Your task to perform on an android device: Search for razer thresher on walmart, select the first entry, add it to the cart, then select checkout. Image 0: 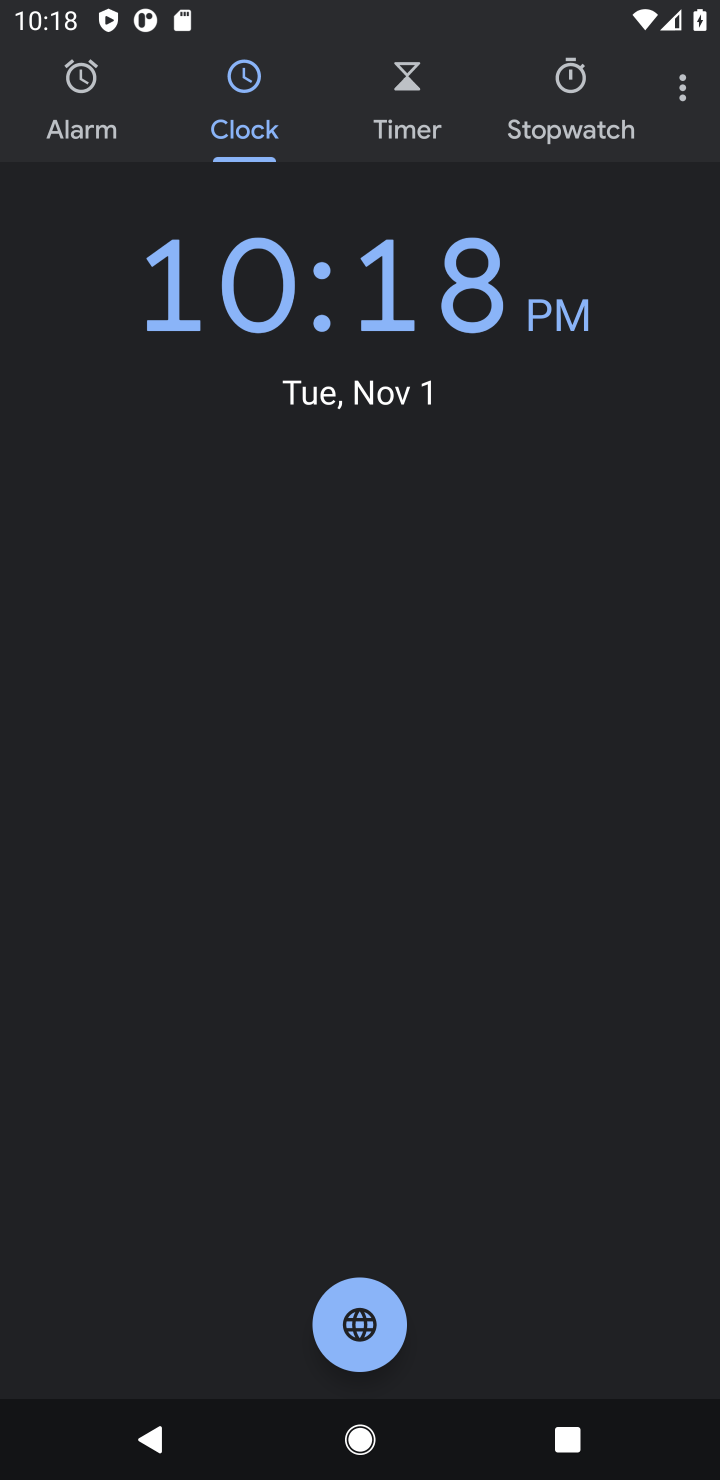
Step 0: press home button
Your task to perform on an android device: Search for razer thresher on walmart, select the first entry, add it to the cart, then select checkout. Image 1: 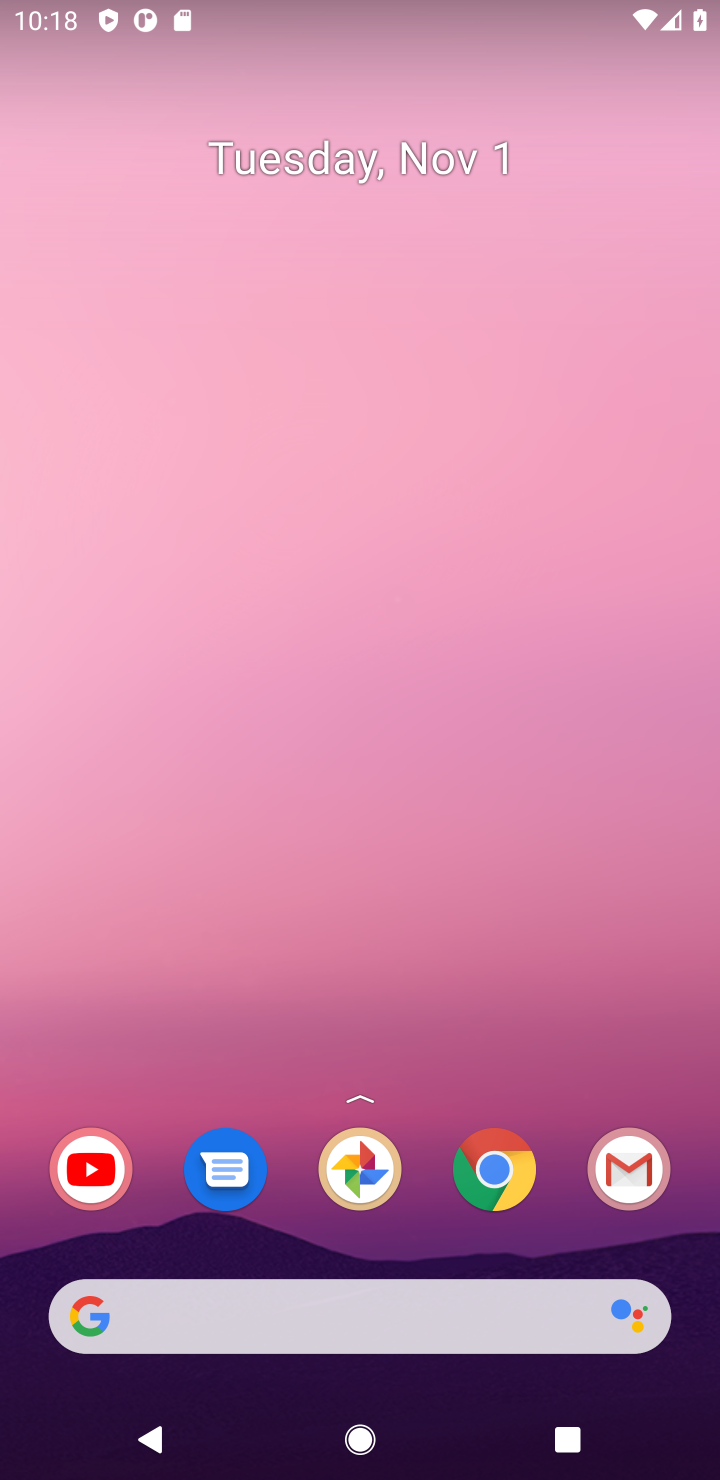
Step 1: click (492, 1164)
Your task to perform on an android device: Search for razer thresher on walmart, select the first entry, add it to the cart, then select checkout. Image 2: 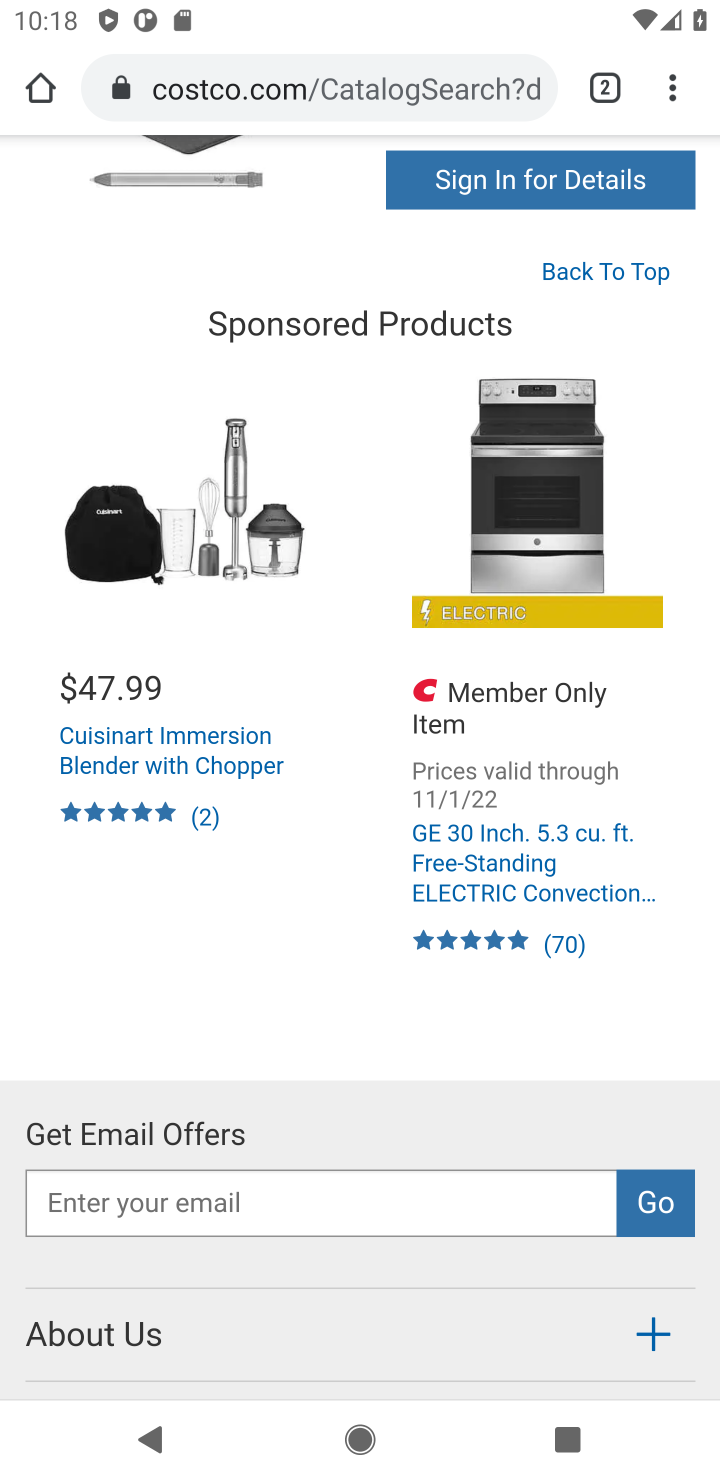
Step 2: click (319, 80)
Your task to perform on an android device: Search for razer thresher on walmart, select the first entry, add it to the cart, then select checkout. Image 3: 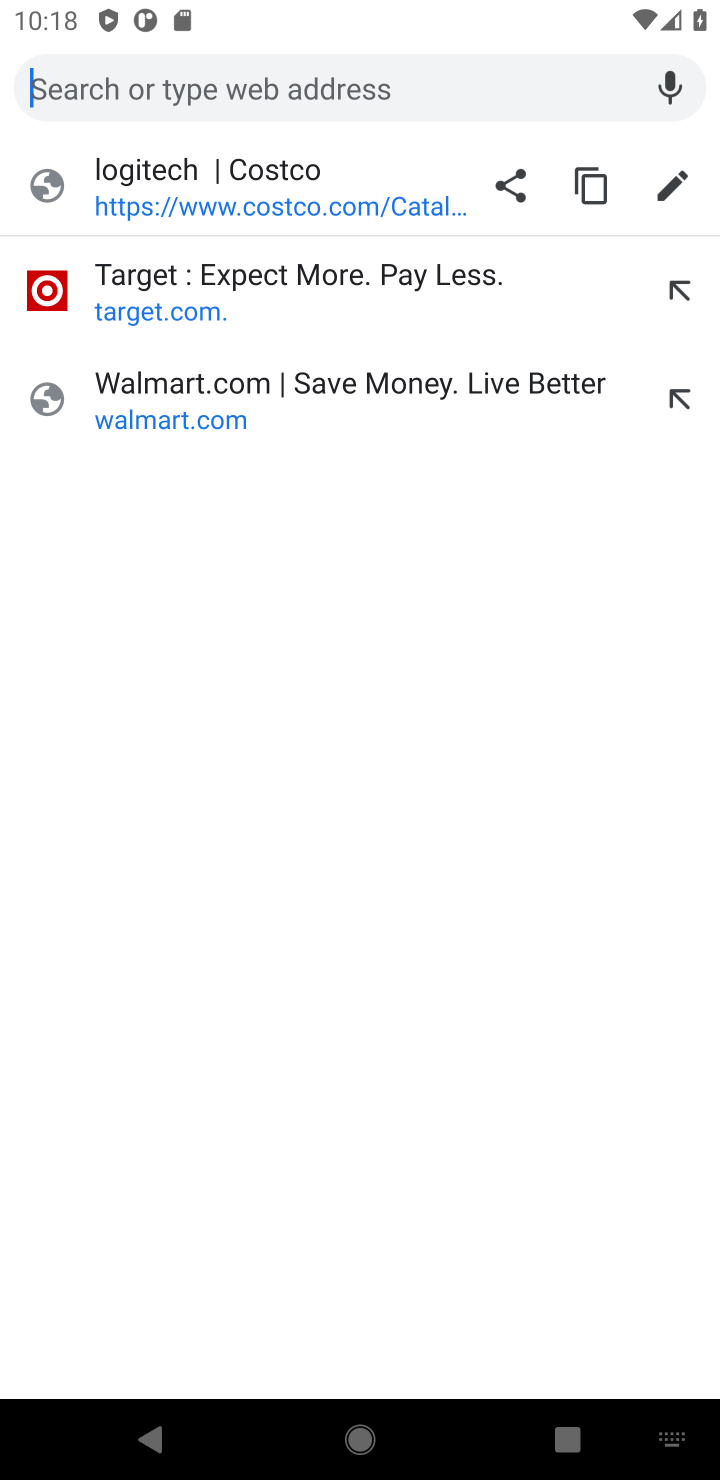
Step 3: type "walmart"
Your task to perform on an android device: Search for razer thresher on walmart, select the first entry, add it to the cart, then select checkout. Image 4: 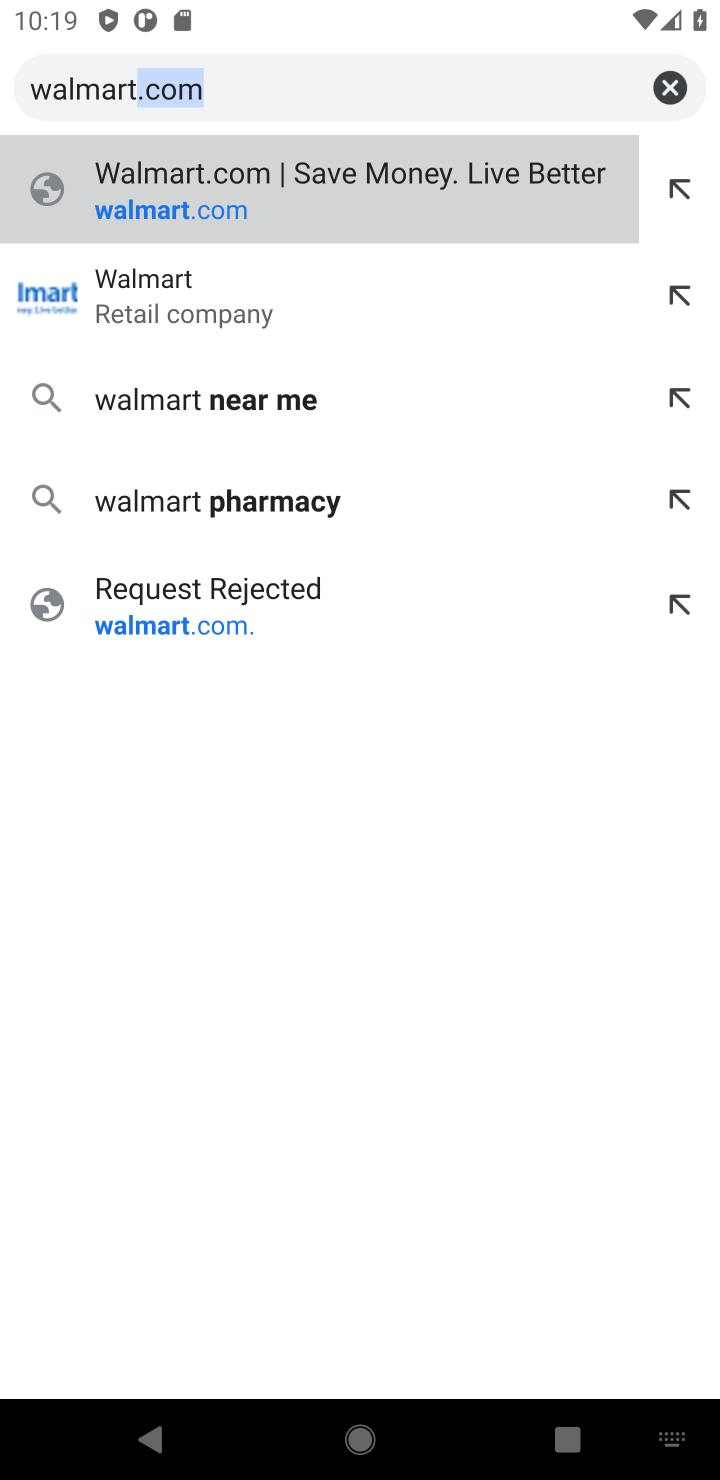
Step 4: click (361, 94)
Your task to perform on an android device: Search for razer thresher on walmart, select the first entry, add it to the cart, then select checkout. Image 5: 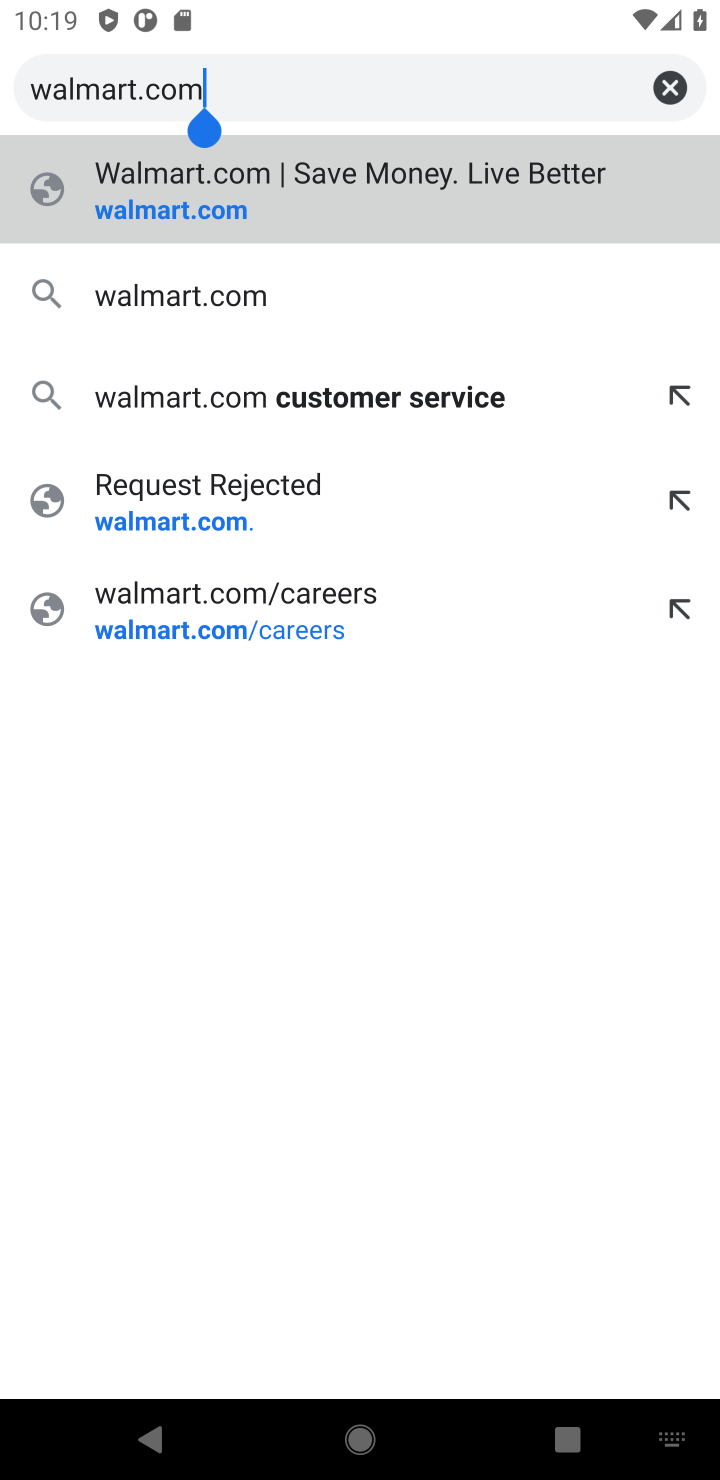
Step 5: click (212, 292)
Your task to perform on an android device: Search for razer thresher on walmart, select the first entry, add it to the cart, then select checkout. Image 6: 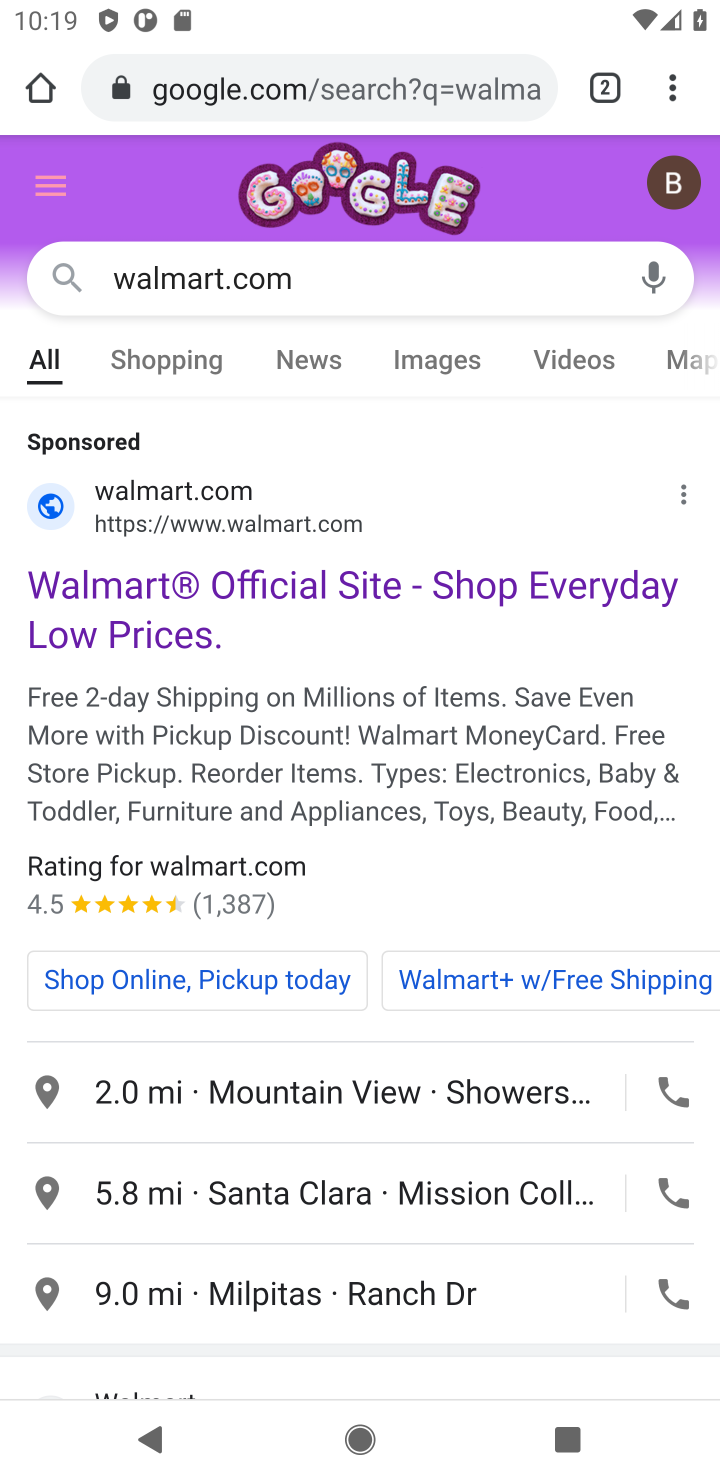
Step 6: drag from (300, 1074) to (320, 611)
Your task to perform on an android device: Search for razer thresher on walmart, select the first entry, add it to the cart, then select checkout. Image 7: 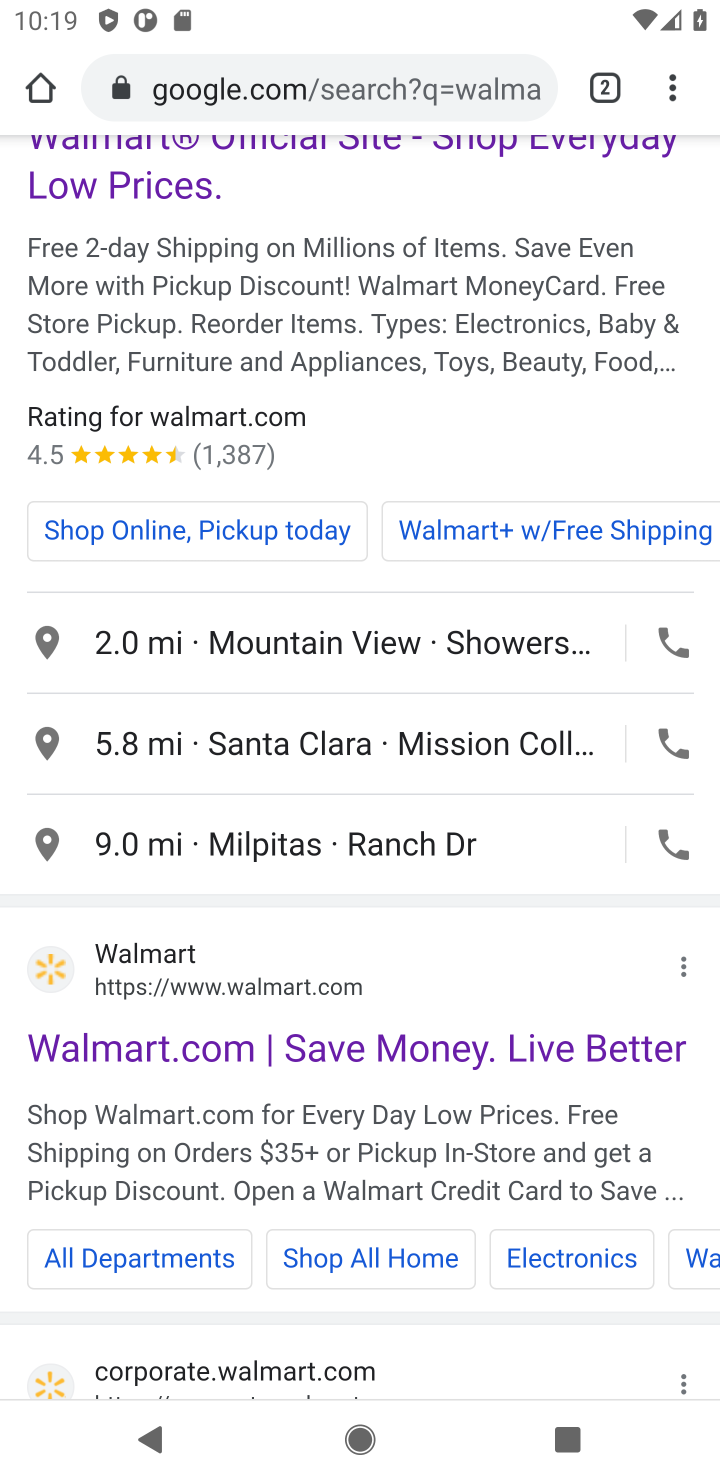
Step 7: click (165, 995)
Your task to perform on an android device: Search for razer thresher on walmart, select the first entry, add it to the cart, then select checkout. Image 8: 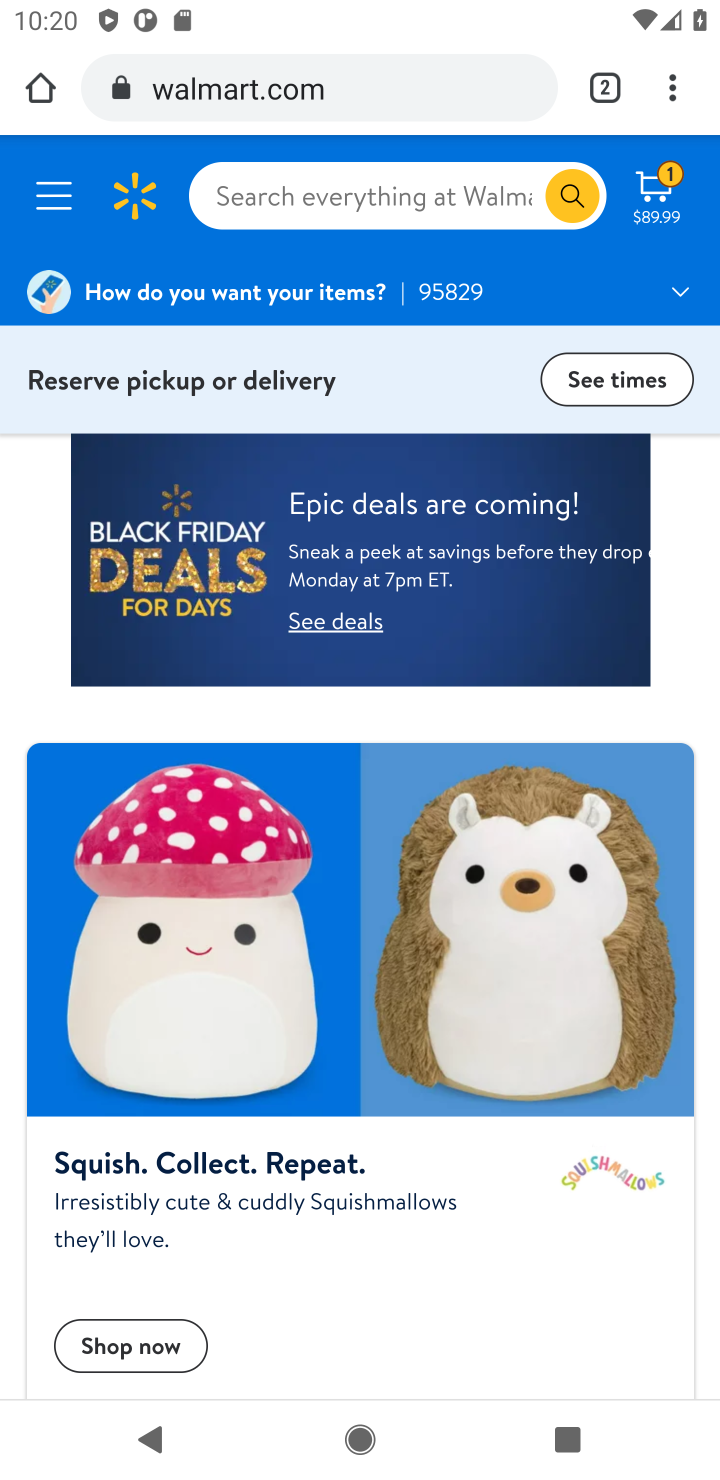
Step 8: click (377, 185)
Your task to perform on an android device: Search for razer thresher on walmart, select the first entry, add it to the cart, then select checkout. Image 9: 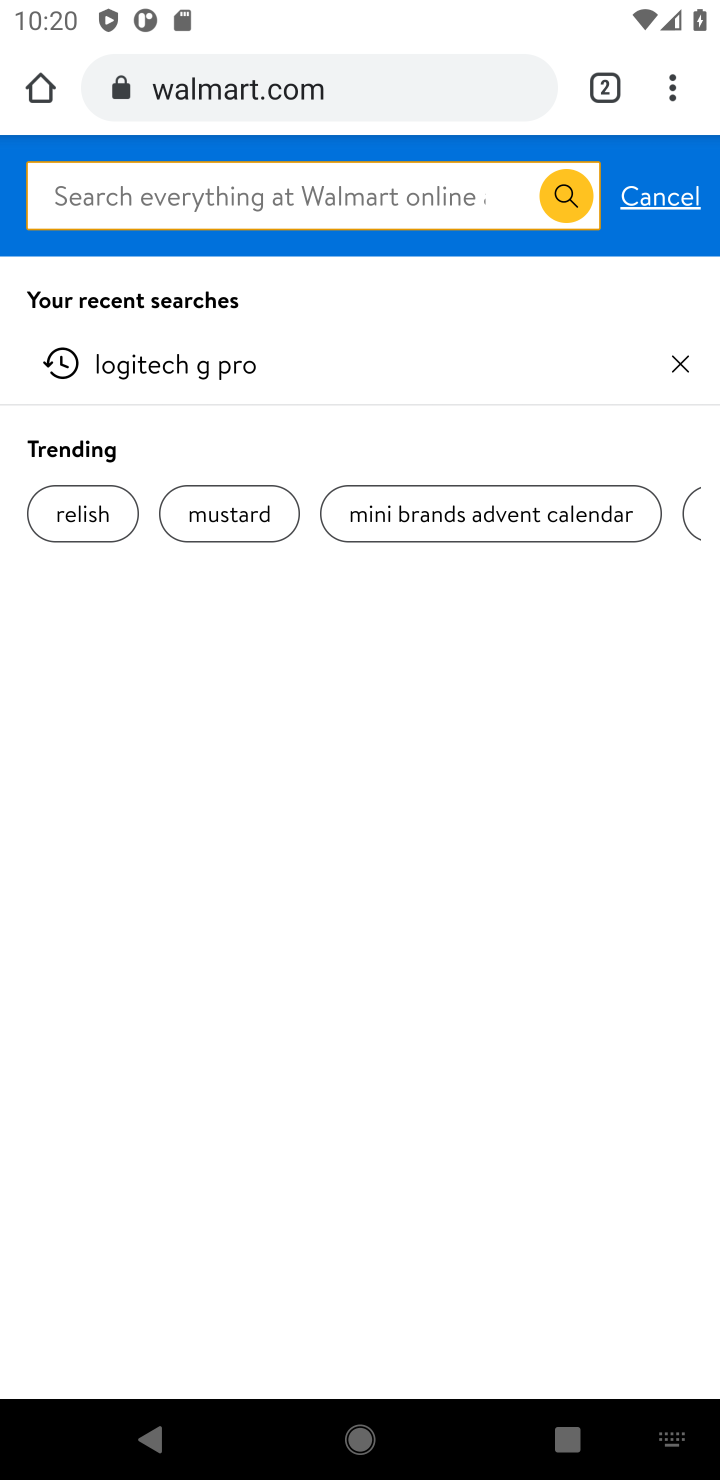
Step 9: type " razer thresher "
Your task to perform on an android device: Search for razer thresher on walmart, select the first entry, add it to the cart, then select checkout. Image 10: 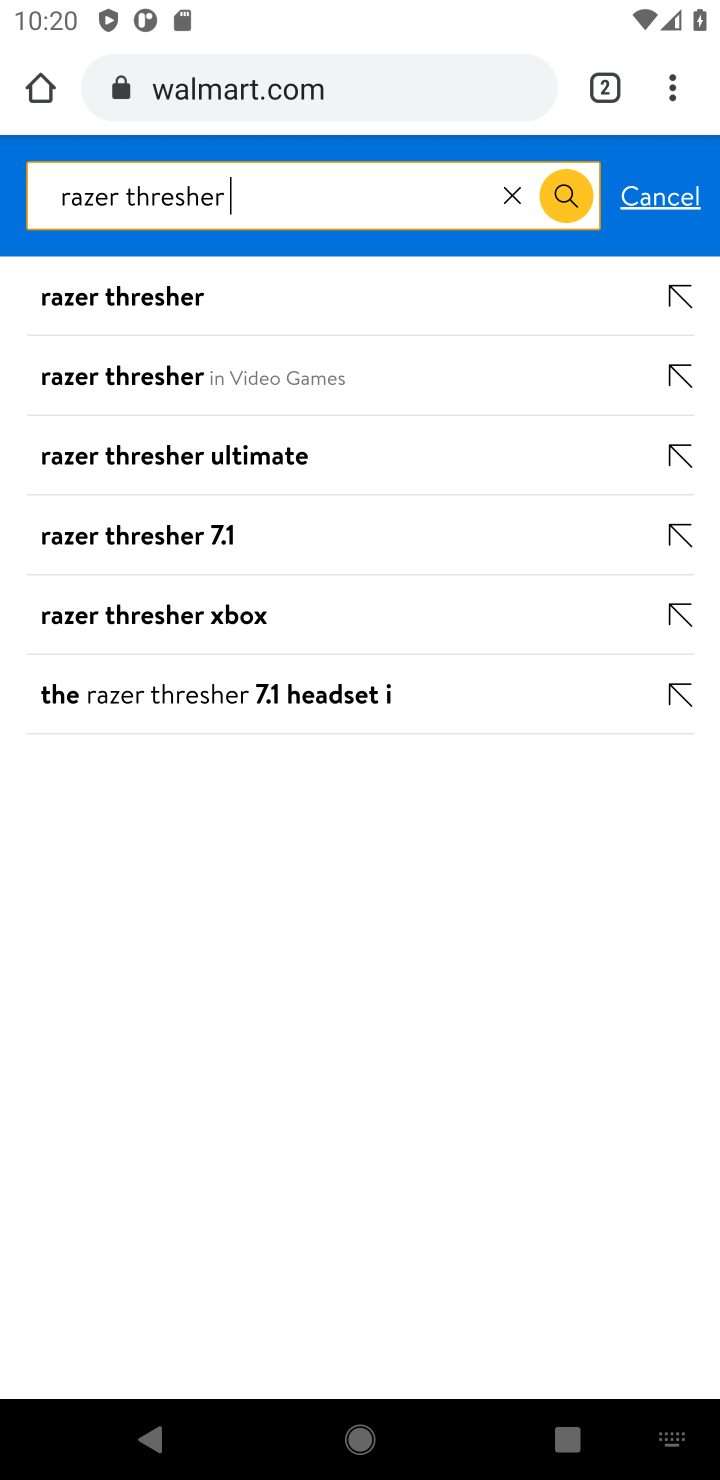
Step 10: click (165, 301)
Your task to perform on an android device: Search for razer thresher on walmart, select the first entry, add it to the cart, then select checkout. Image 11: 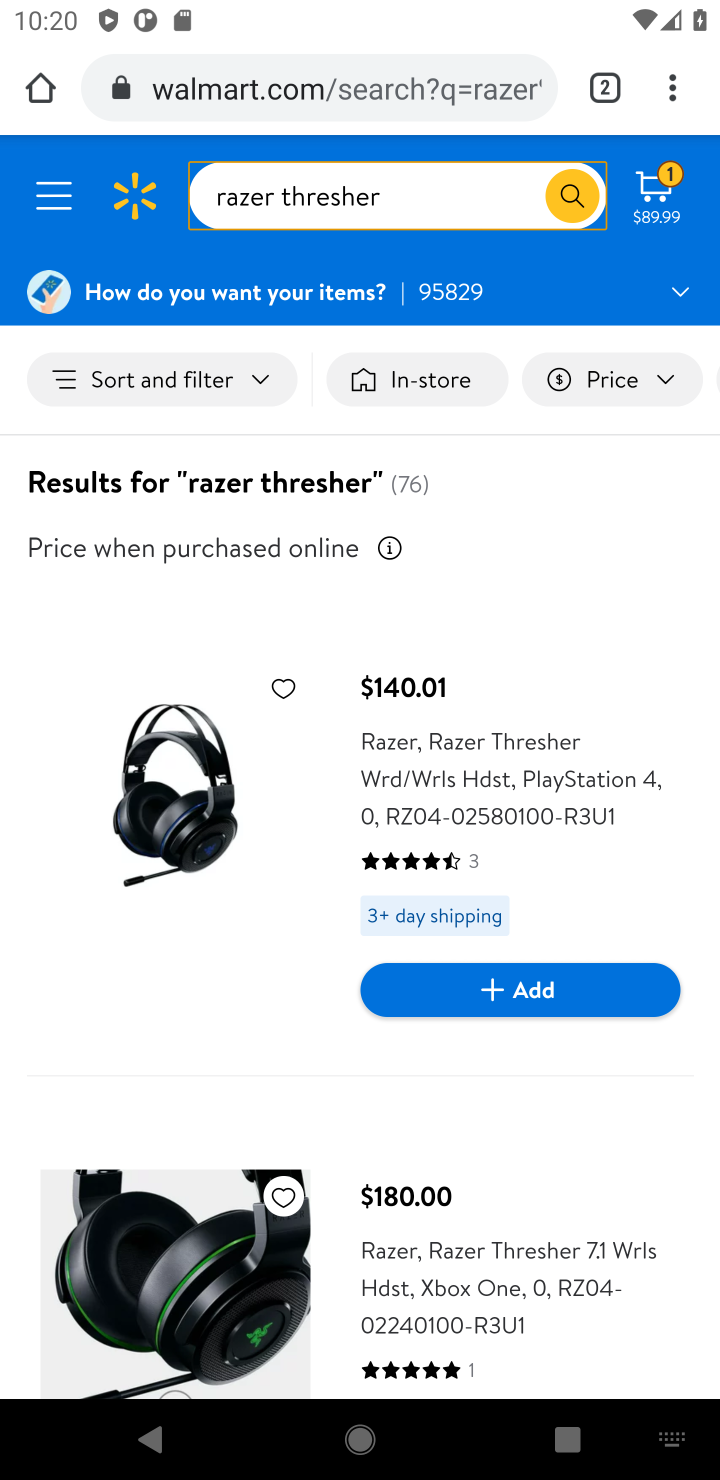
Step 11: click (213, 780)
Your task to perform on an android device: Search for razer thresher on walmart, select the first entry, add it to the cart, then select checkout. Image 12: 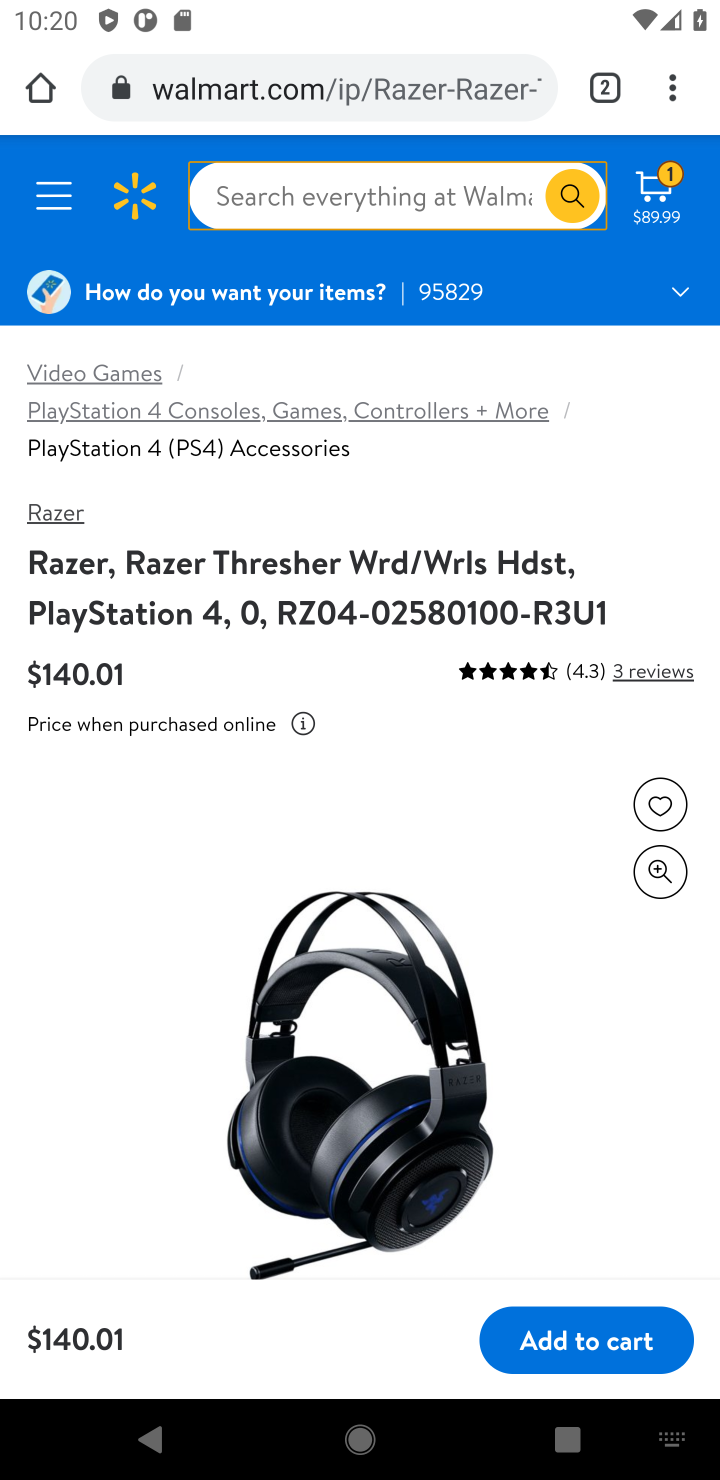
Step 12: click (569, 1329)
Your task to perform on an android device: Search for razer thresher on walmart, select the first entry, add it to the cart, then select checkout. Image 13: 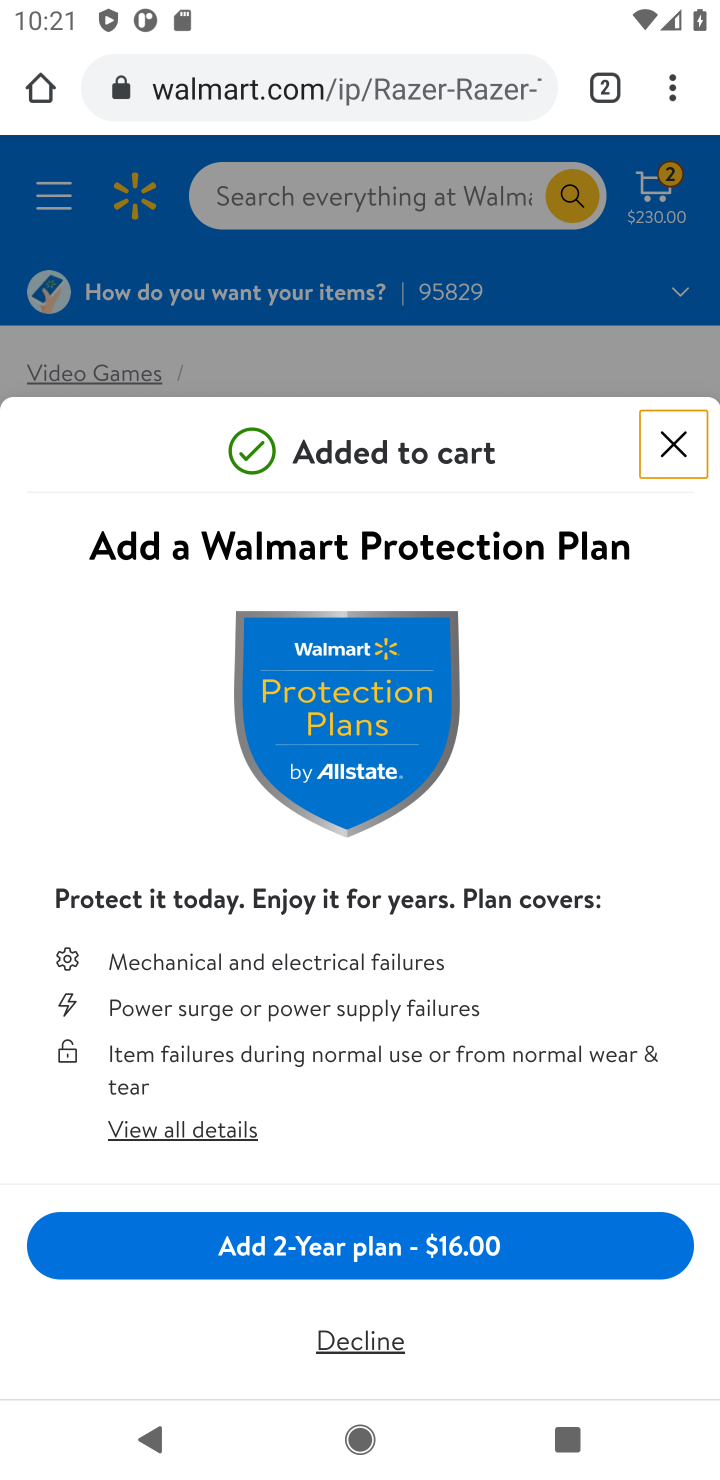
Step 13: click (670, 449)
Your task to perform on an android device: Search for razer thresher on walmart, select the first entry, add it to the cart, then select checkout. Image 14: 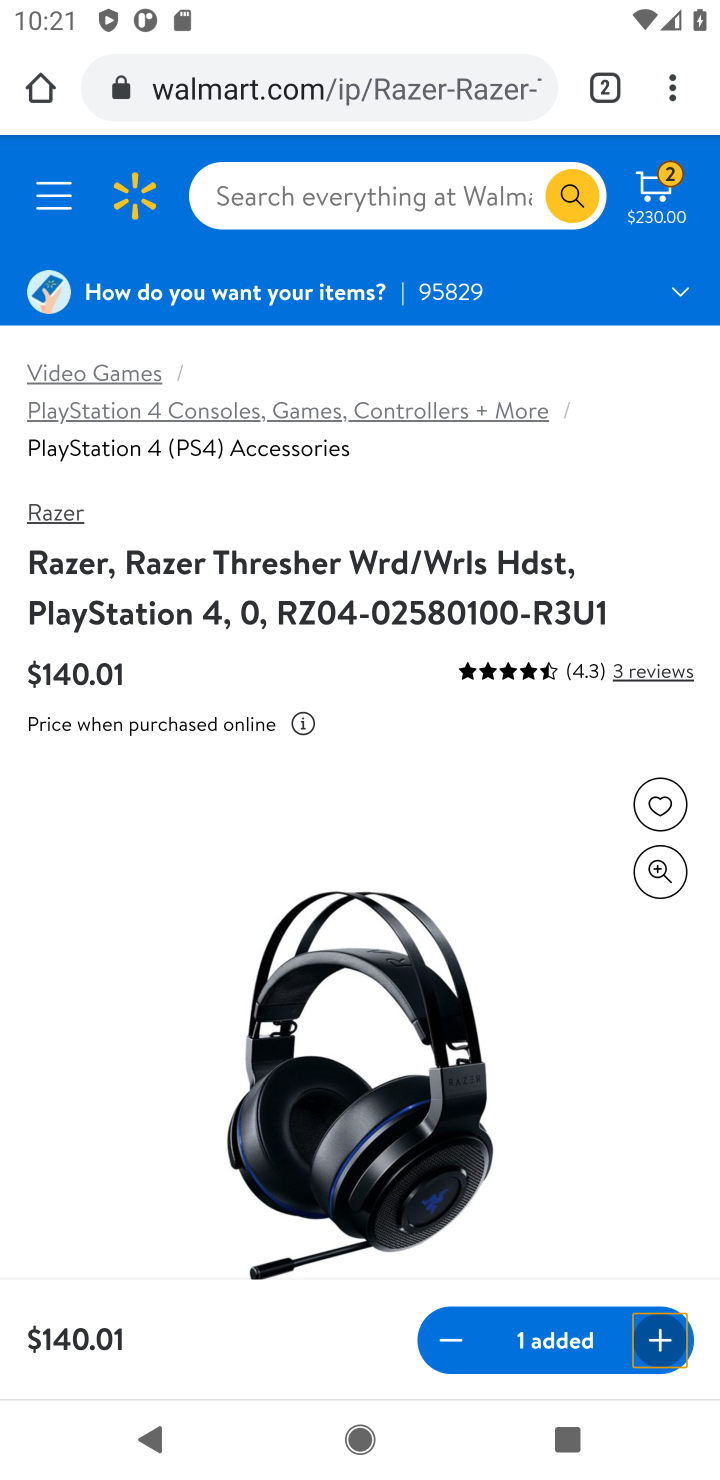
Step 14: click (647, 198)
Your task to perform on an android device: Search for razer thresher on walmart, select the first entry, add it to the cart, then select checkout. Image 15: 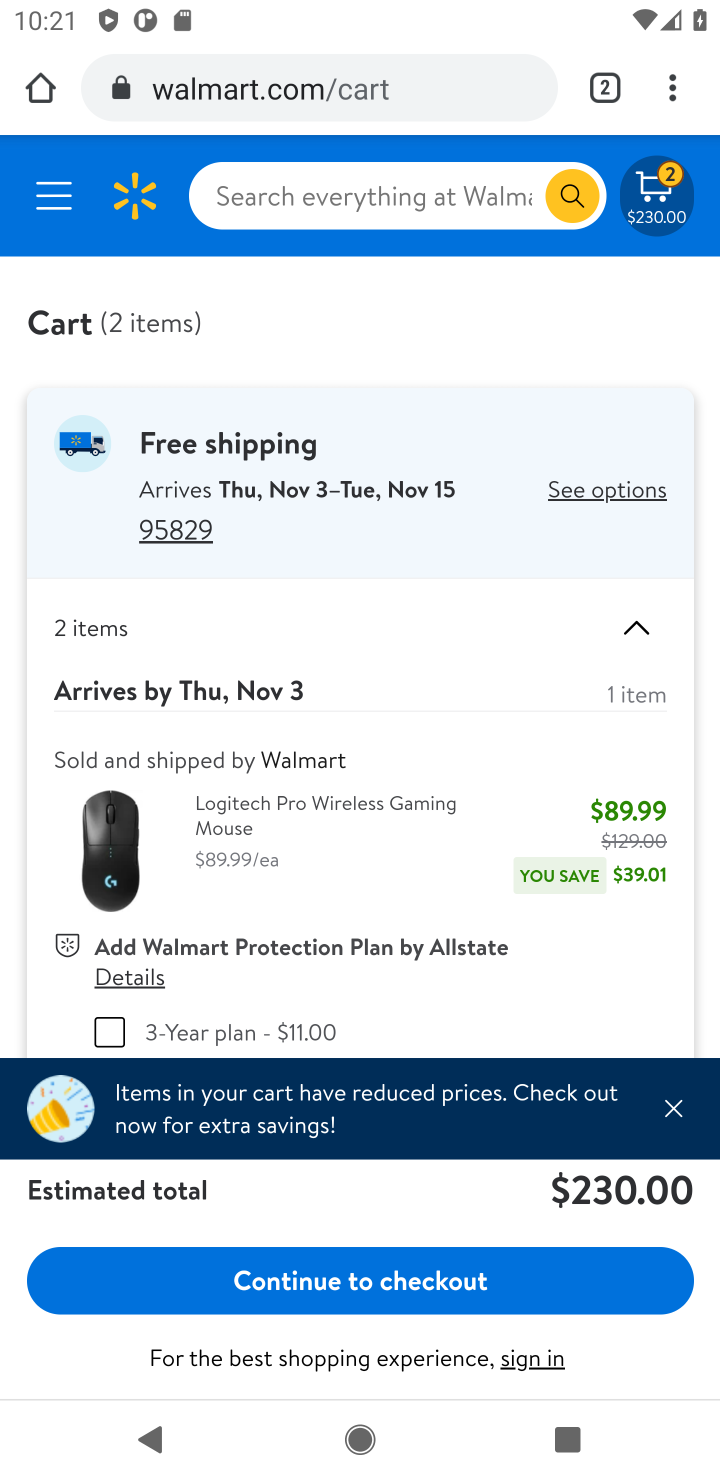
Step 15: drag from (479, 764) to (482, 441)
Your task to perform on an android device: Search for razer thresher on walmart, select the first entry, add it to the cart, then select checkout. Image 16: 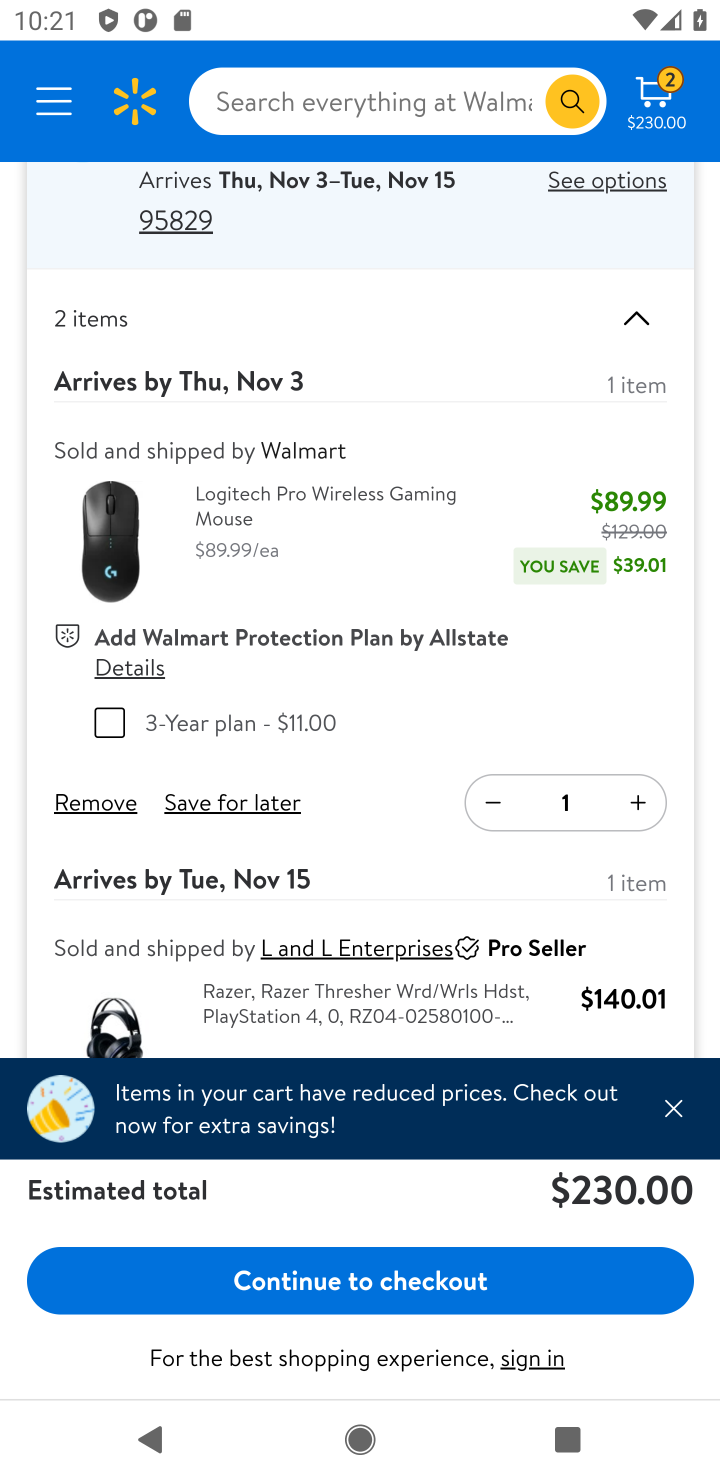
Step 16: click (396, 1276)
Your task to perform on an android device: Search for razer thresher on walmart, select the first entry, add it to the cart, then select checkout. Image 17: 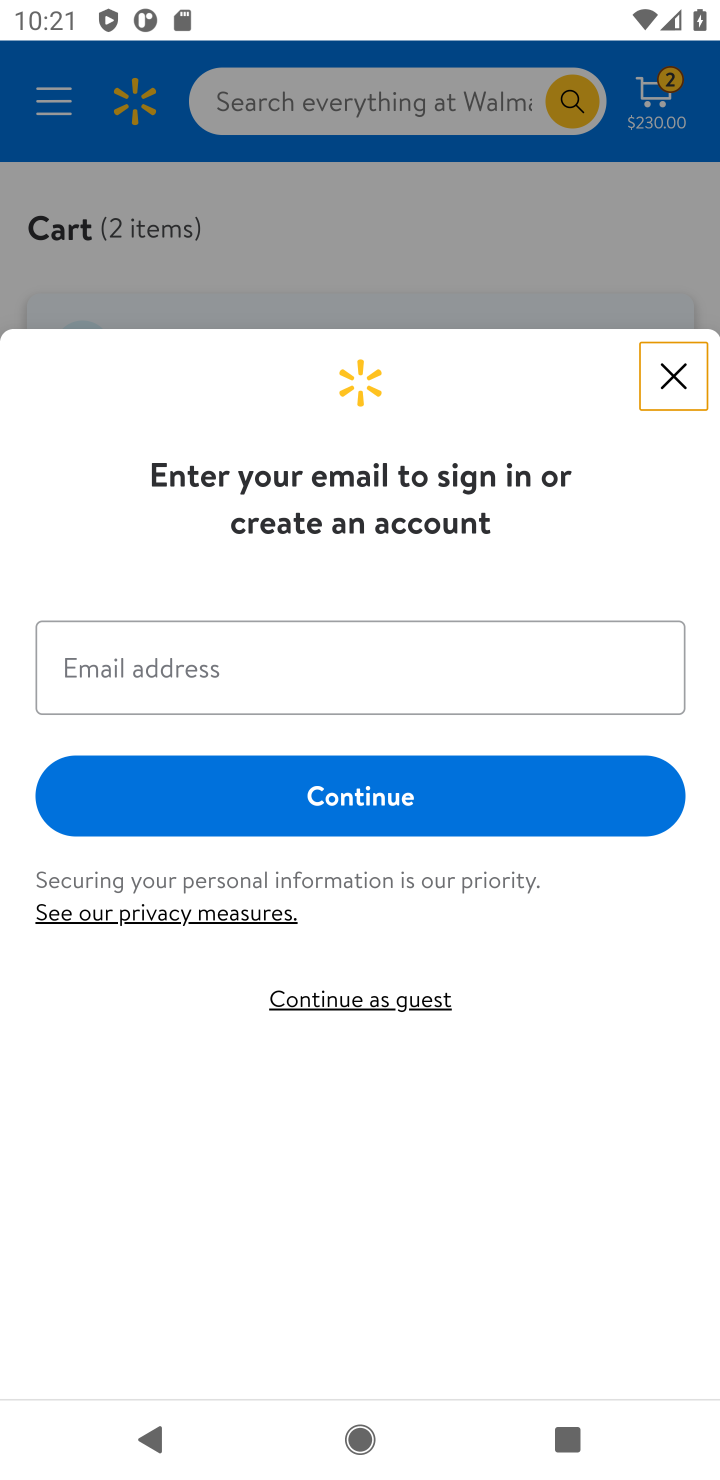
Step 17: task complete